Your task to perform on an android device: toggle pop-ups in chrome Image 0: 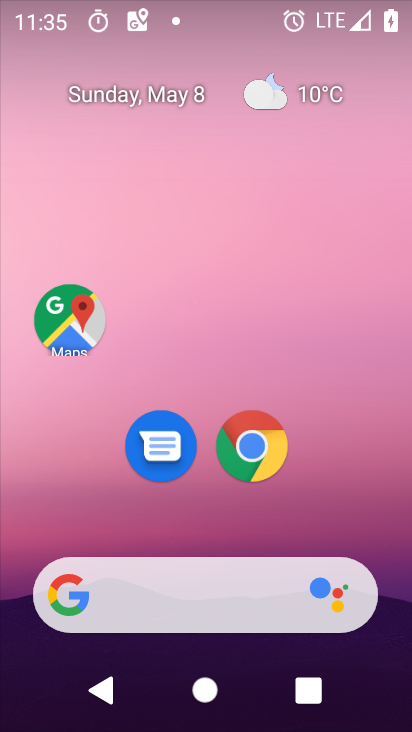
Step 0: click (253, 447)
Your task to perform on an android device: toggle pop-ups in chrome Image 1: 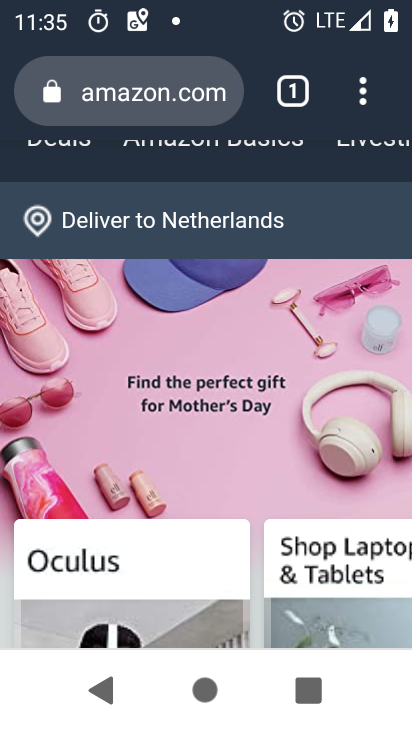
Step 1: drag from (367, 95) to (126, 474)
Your task to perform on an android device: toggle pop-ups in chrome Image 2: 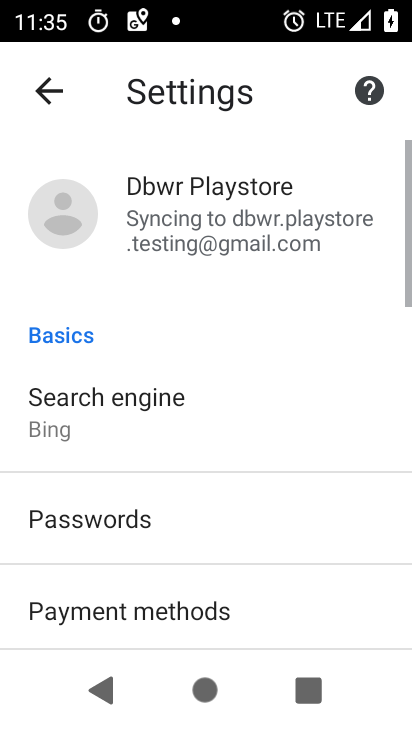
Step 2: drag from (292, 589) to (271, 198)
Your task to perform on an android device: toggle pop-ups in chrome Image 3: 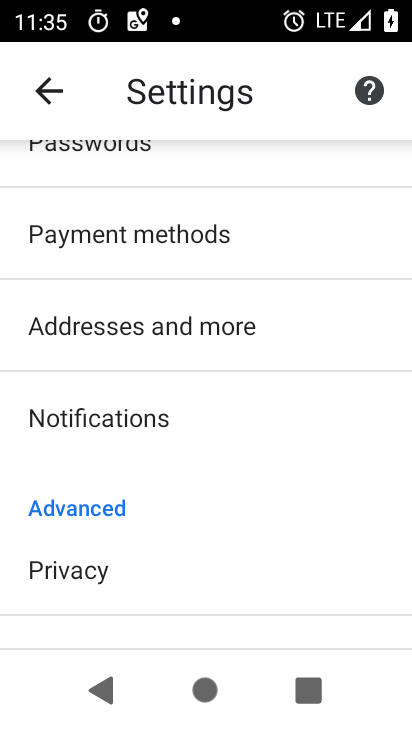
Step 3: drag from (201, 525) to (201, 172)
Your task to perform on an android device: toggle pop-ups in chrome Image 4: 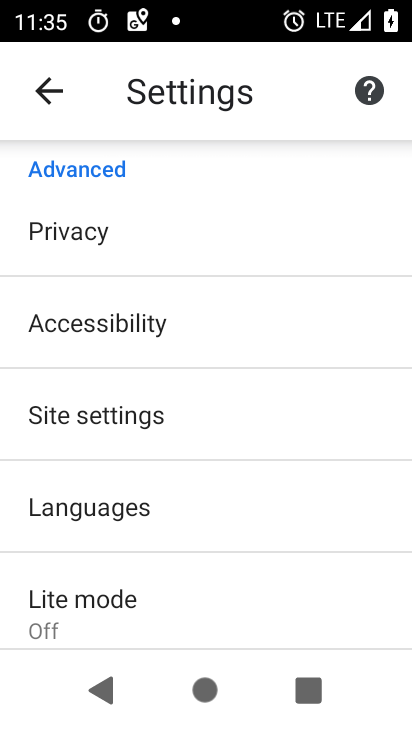
Step 4: click (114, 423)
Your task to perform on an android device: toggle pop-ups in chrome Image 5: 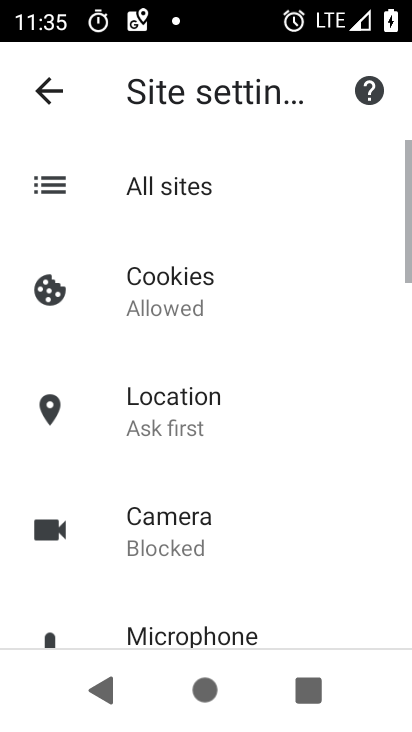
Step 5: drag from (236, 559) to (265, 174)
Your task to perform on an android device: toggle pop-ups in chrome Image 6: 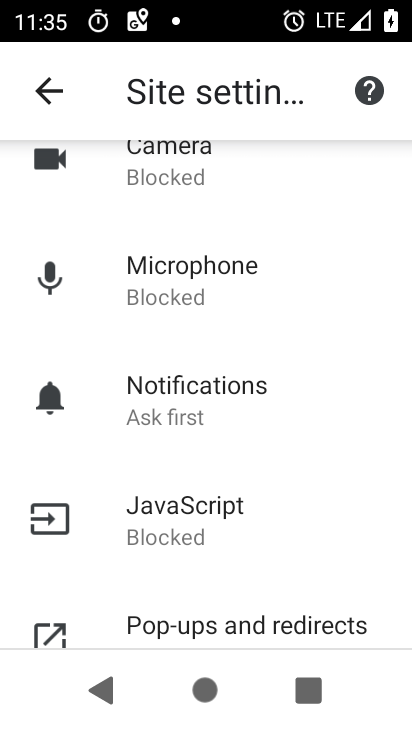
Step 6: click (216, 619)
Your task to perform on an android device: toggle pop-ups in chrome Image 7: 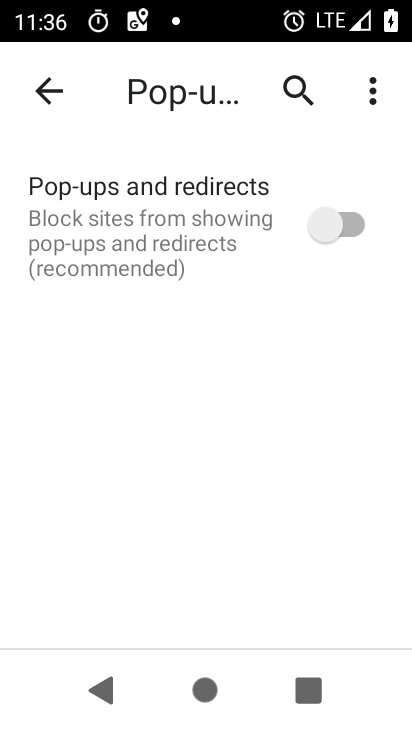
Step 7: click (348, 224)
Your task to perform on an android device: toggle pop-ups in chrome Image 8: 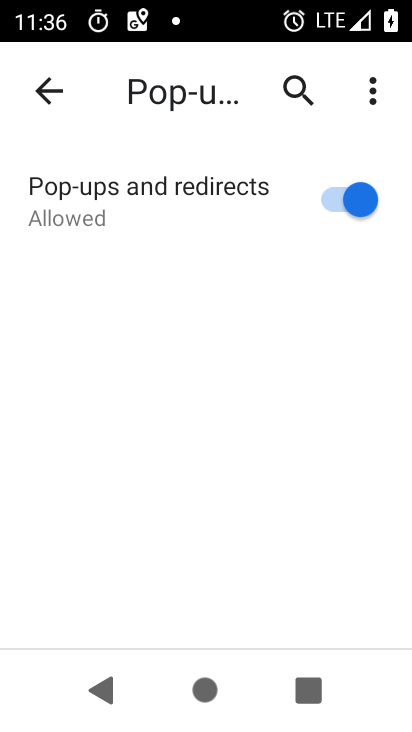
Step 8: task complete